Your task to perform on an android device: open a new tab in the chrome app Image 0: 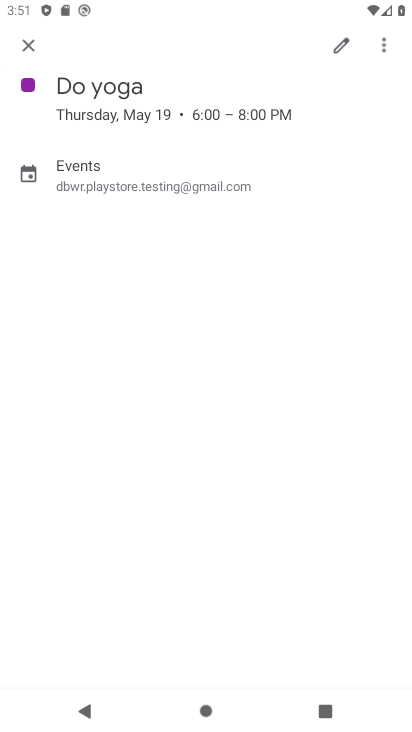
Step 0: press home button
Your task to perform on an android device: open a new tab in the chrome app Image 1: 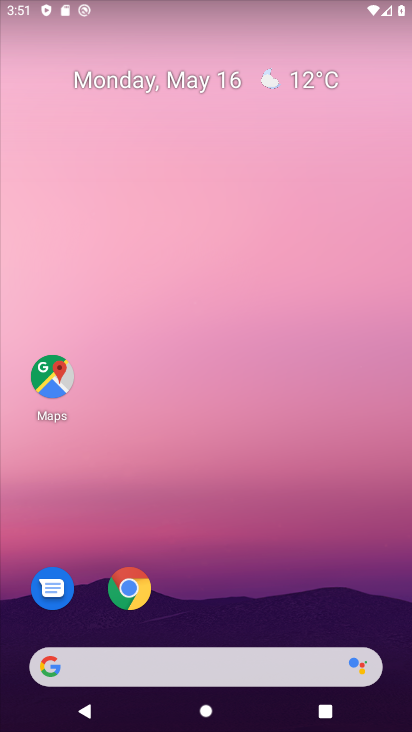
Step 1: click (129, 594)
Your task to perform on an android device: open a new tab in the chrome app Image 2: 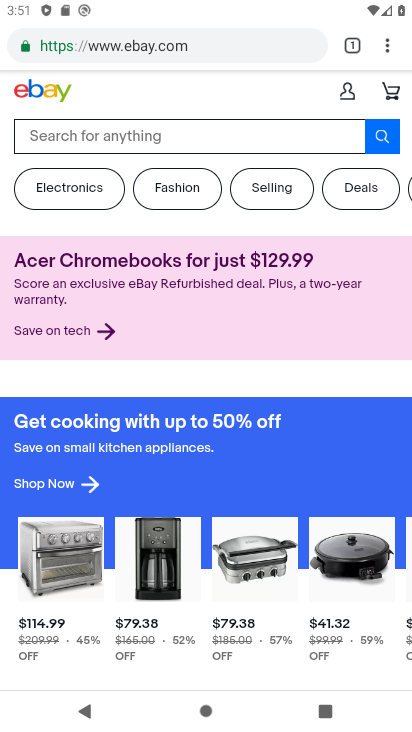
Step 2: click (380, 43)
Your task to perform on an android device: open a new tab in the chrome app Image 3: 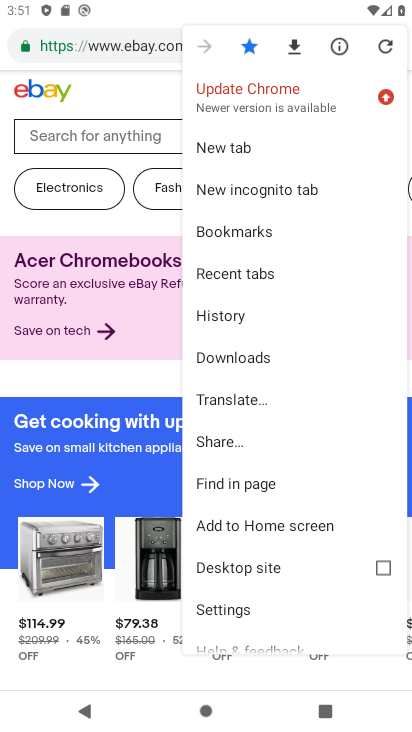
Step 3: click (279, 147)
Your task to perform on an android device: open a new tab in the chrome app Image 4: 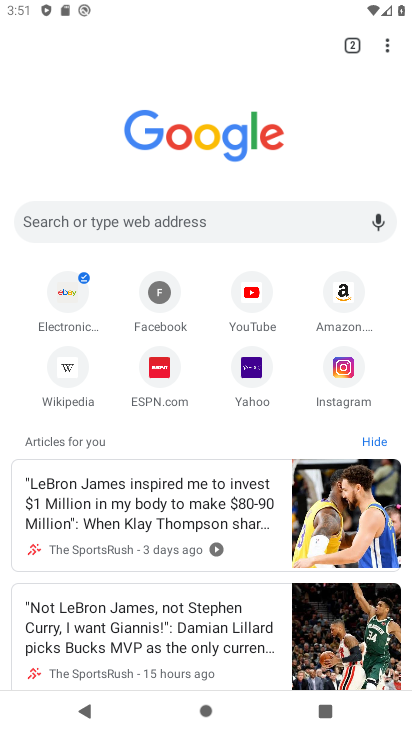
Step 4: task complete